Your task to perform on an android device: Search for the best custom wallets on Etsy. Image 0: 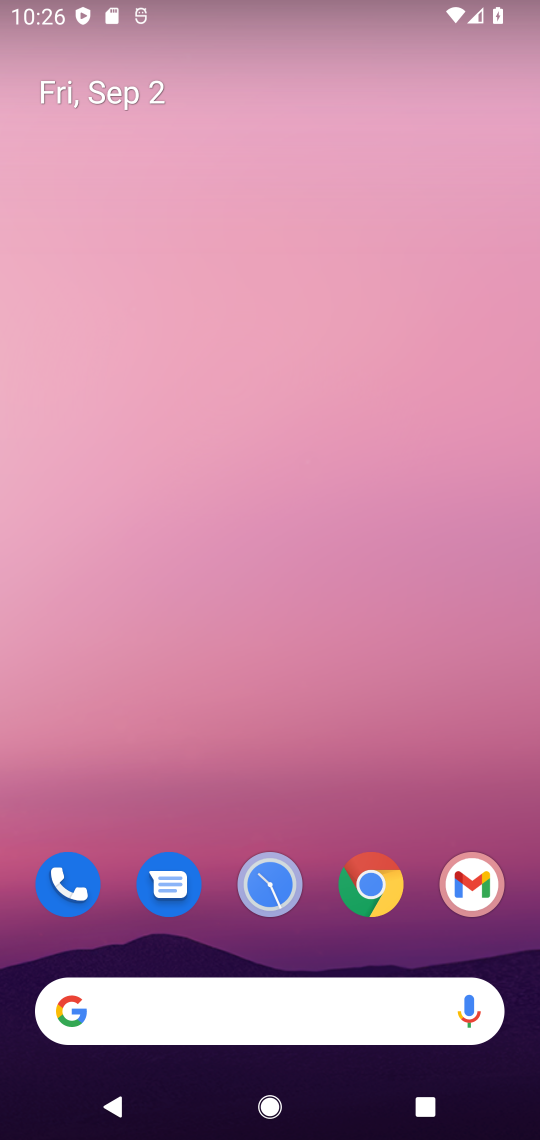
Step 0: drag from (214, 1032) to (231, 230)
Your task to perform on an android device: Search for the best custom wallets on Etsy. Image 1: 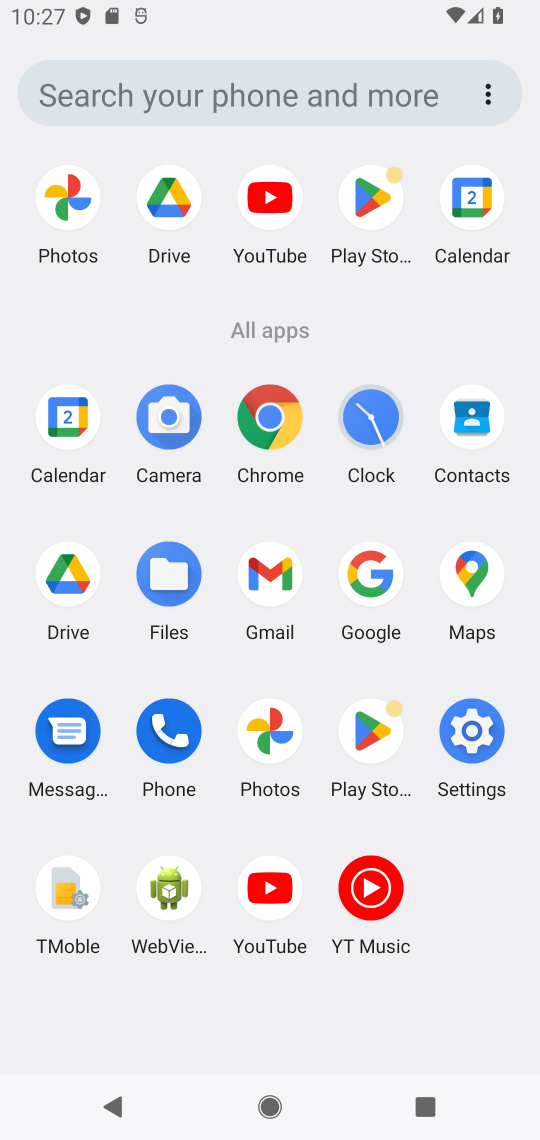
Step 1: click (260, 406)
Your task to perform on an android device: Search for the best custom wallets on Etsy. Image 2: 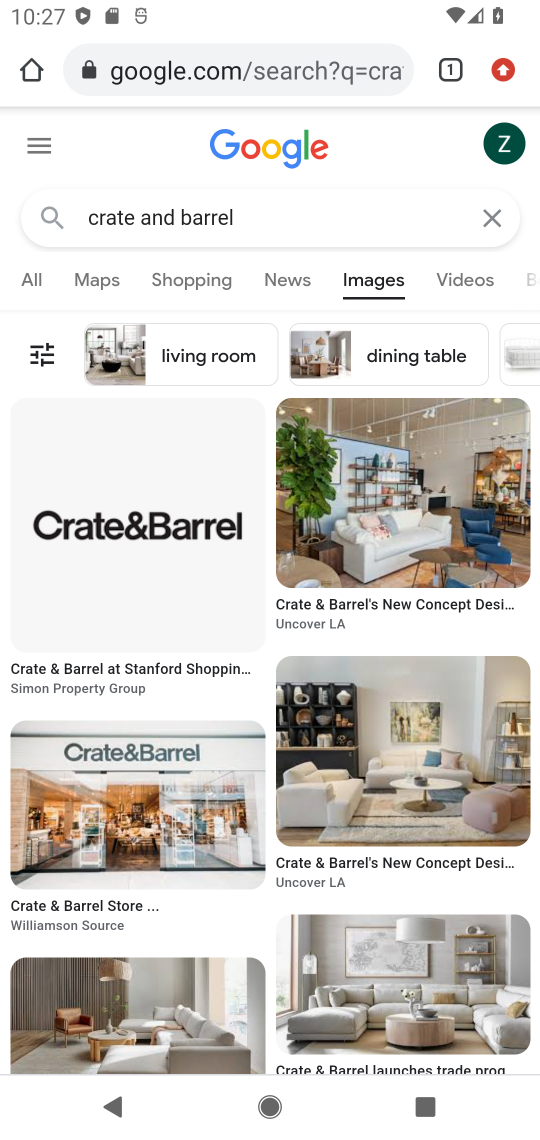
Step 2: click (349, 64)
Your task to perform on an android device: Search for the best custom wallets on Etsy. Image 3: 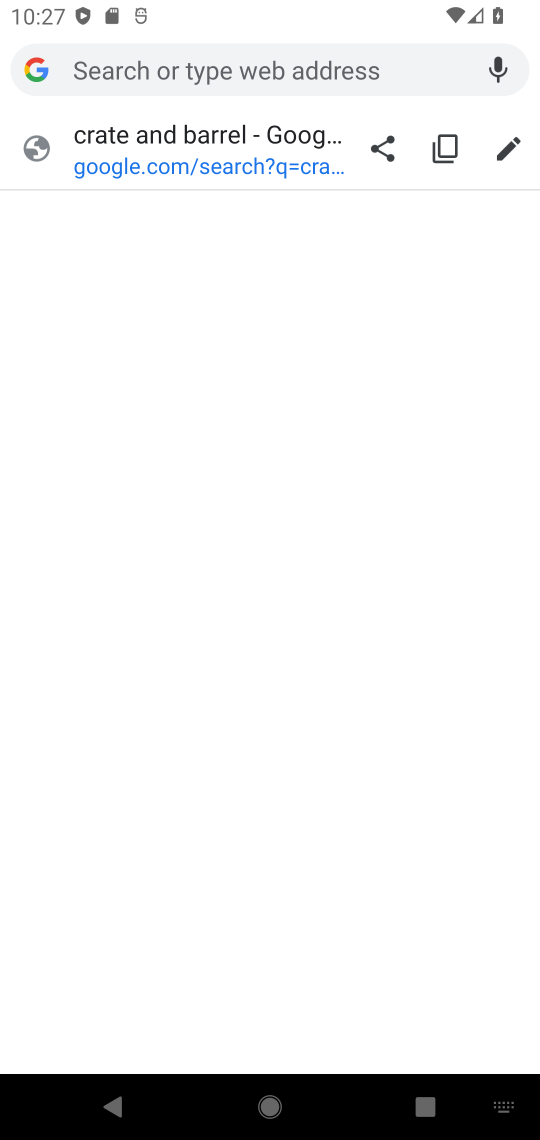
Step 3: type "Etsy"
Your task to perform on an android device: Search for the best custom wallets on Etsy. Image 4: 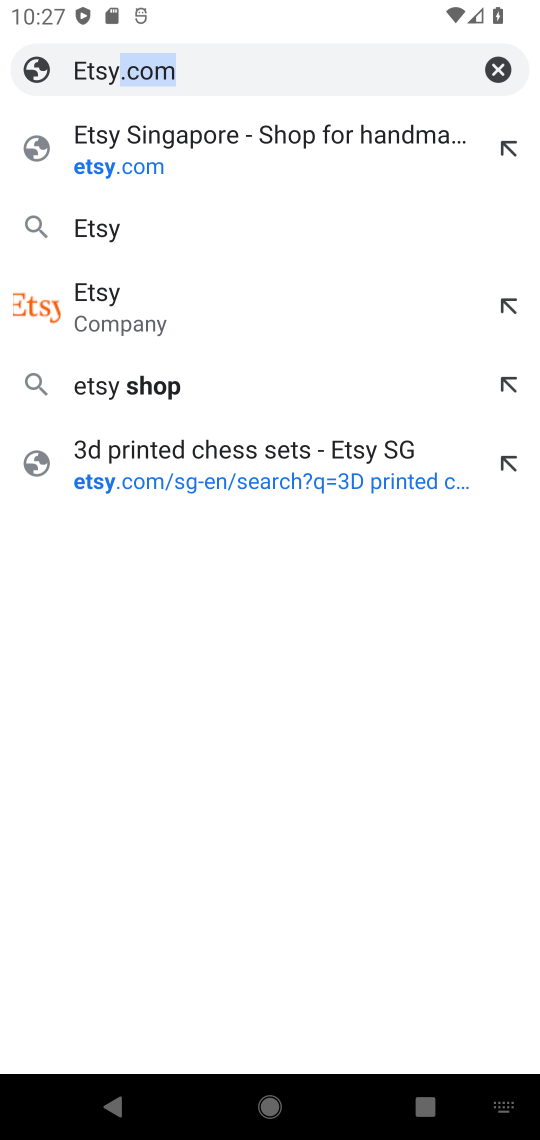
Step 4: click (304, 164)
Your task to perform on an android device: Search for the best custom wallets on Etsy. Image 5: 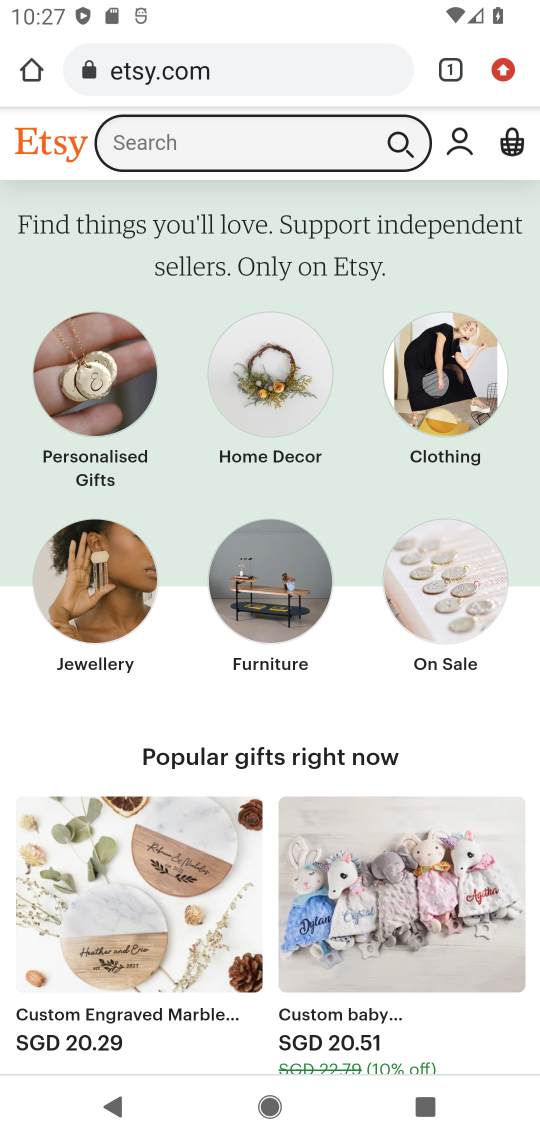
Step 5: click (215, 134)
Your task to perform on an android device: Search for the best custom wallets on Etsy. Image 6: 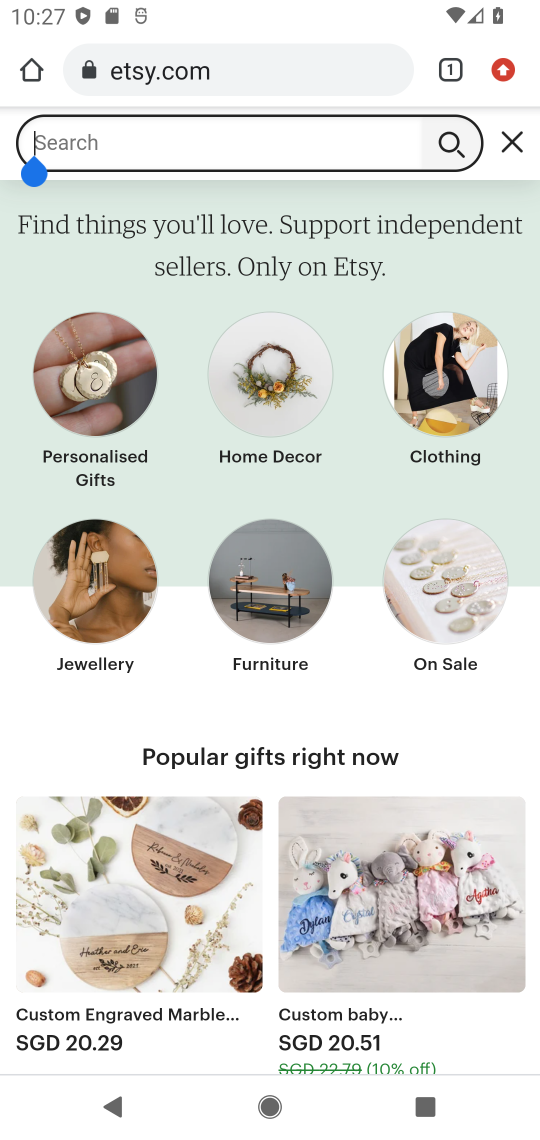
Step 6: type "best custom walleta"
Your task to perform on an android device: Search for the best custom wallets on Etsy. Image 7: 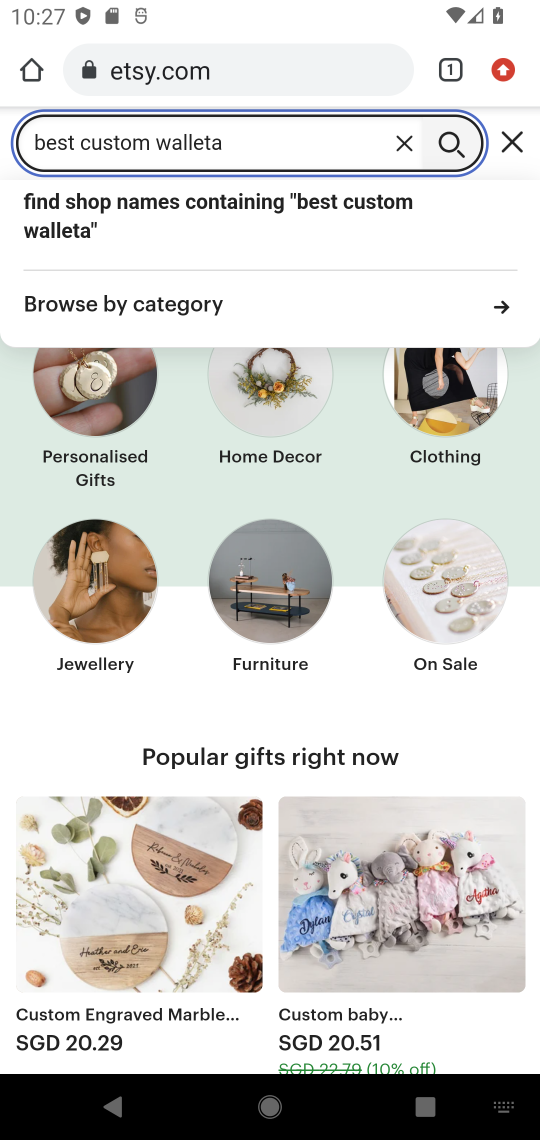
Step 7: click (400, 148)
Your task to perform on an android device: Search for the best custom wallets on Etsy. Image 8: 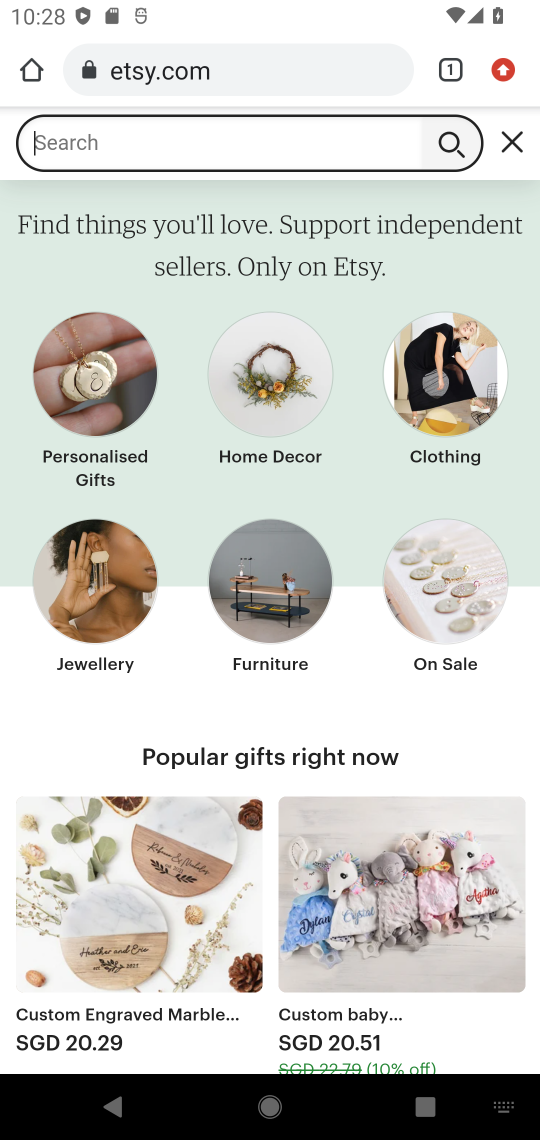
Step 8: type "best custom wallets"
Your task to perform on an android device: Search for the best custom wallets on Etsy. Image 9: 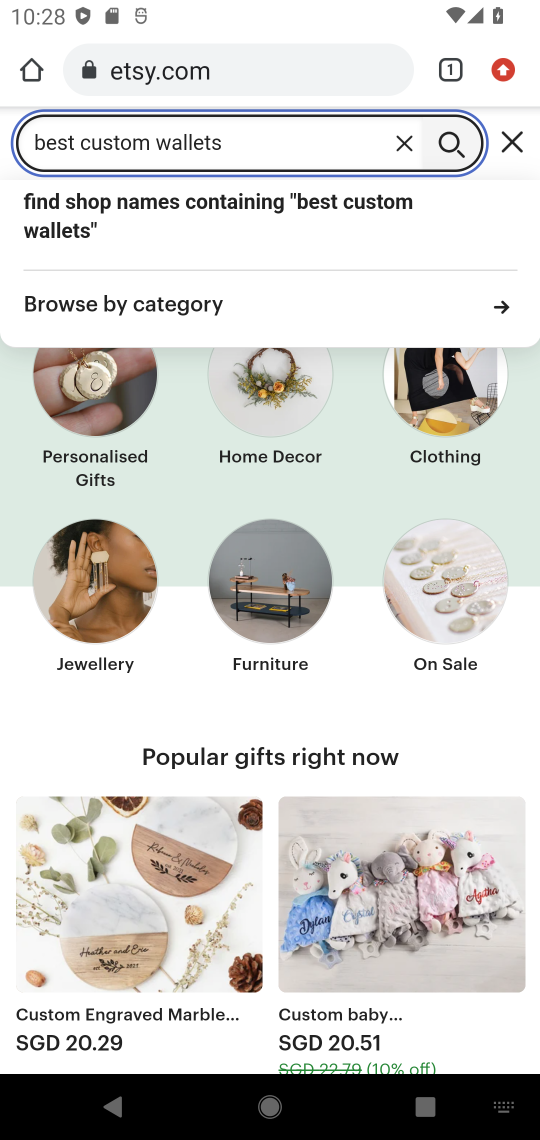
Step 9: click (452, 136)
Your task to perform on an android device: Search for the best custom wallets on Etsy. Image 10: 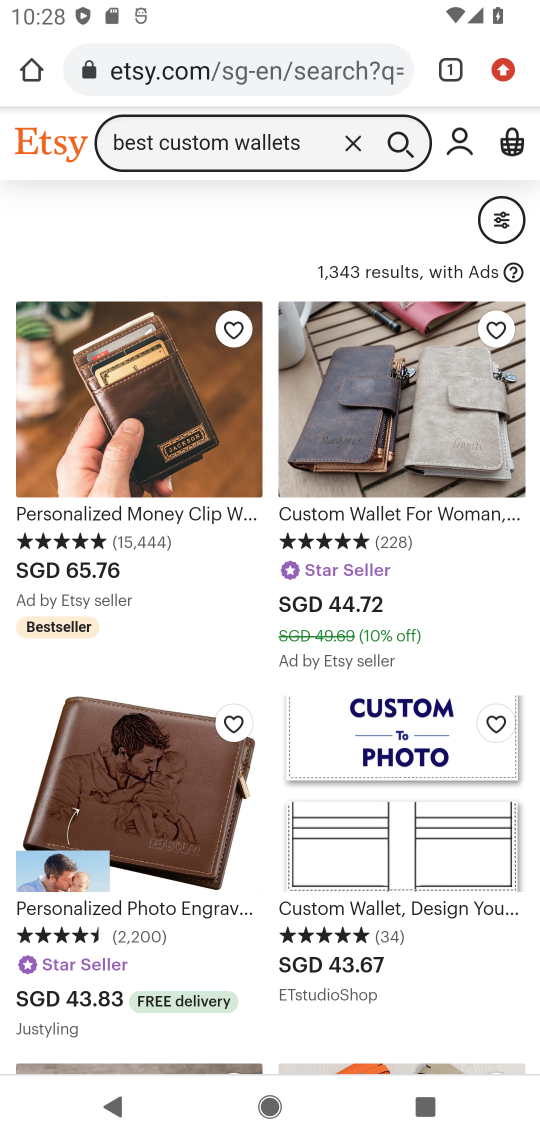
Step 10: task complete